Your task to perform on an android device: toggle notifications settings in the gmail app Image 0: 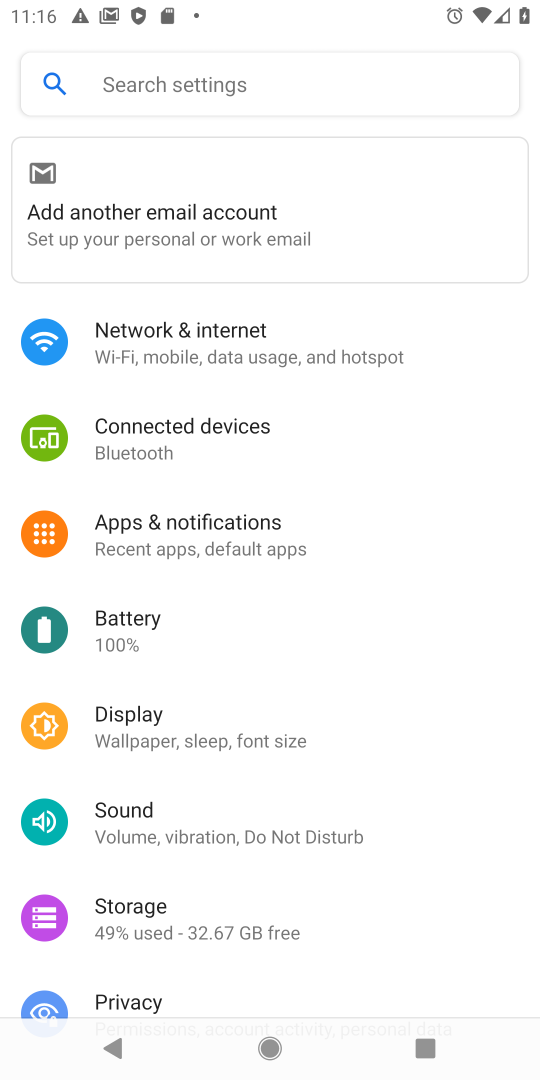
Step 0: press home button
Your task to perform on an android device: toggle notifications settings in the gmail app Image 1: 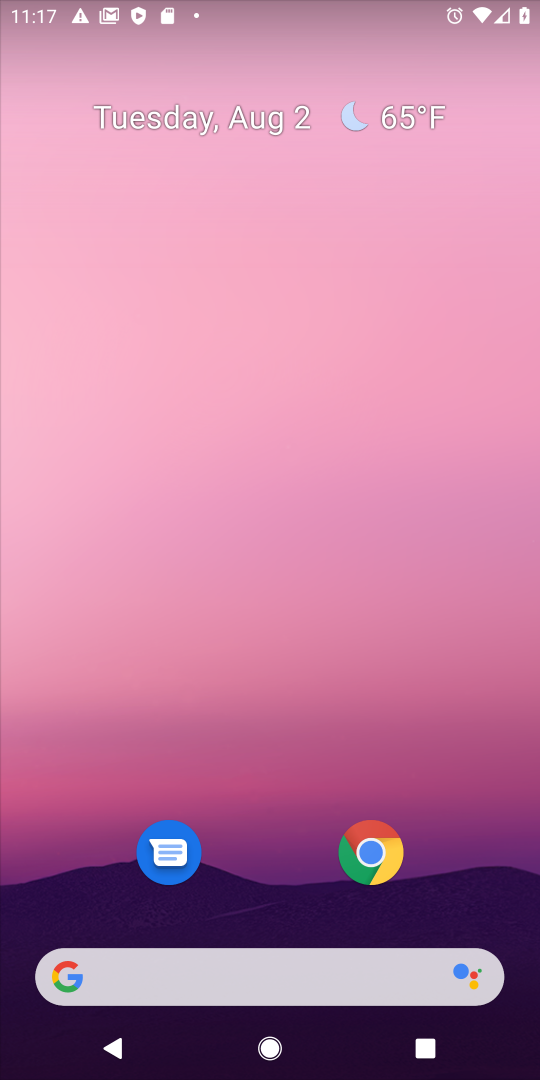
Step 1: drag from (23, 1049) to (330, 110)
Your task to perform on an android device: toggle notifications settings in the gmail app Image 2: 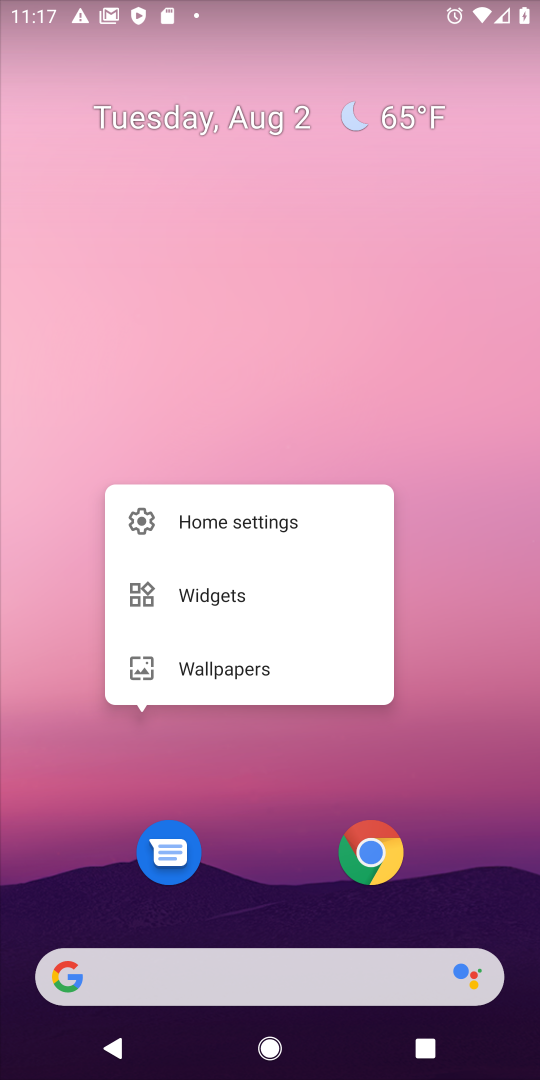
Step 2: drag from (80, 1022) to (324, 86)
Your task to perform on an android device: toggle notifications settings in the gmail app Image 3: 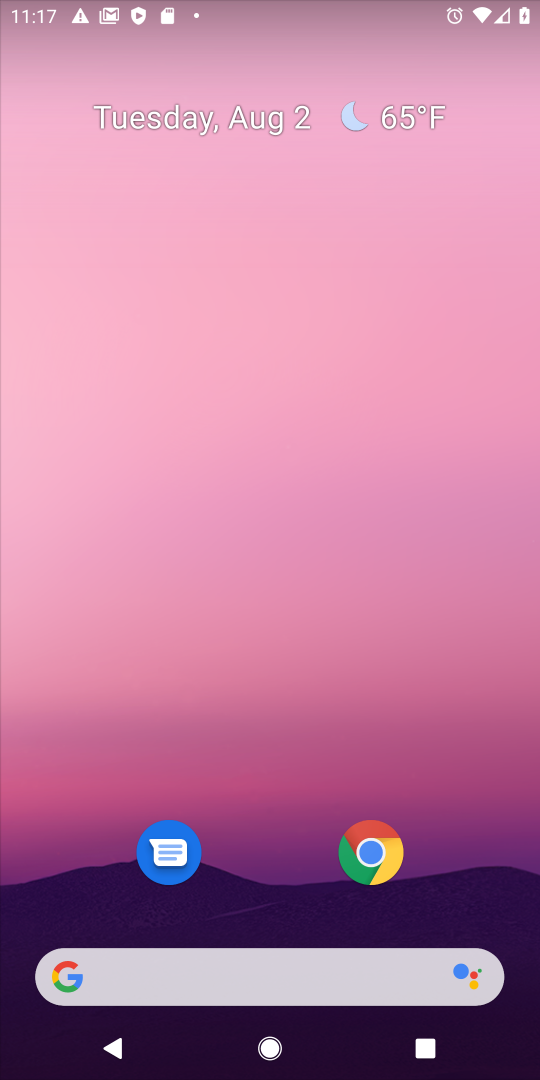
Step 3: drag from (51, 971) to (293, 5)
Your task to perform on an android device: toggle notifications settings in the gmail app Image 4: 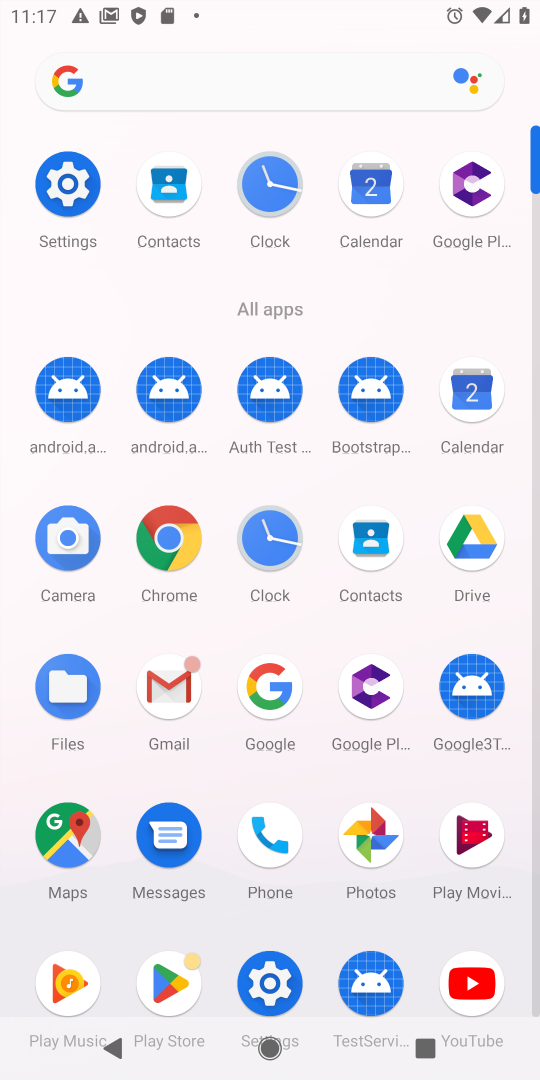
Step 4: click (277, 995)
Your task to perform on an android device: toggle notifications settings in the gmail app Image 5: 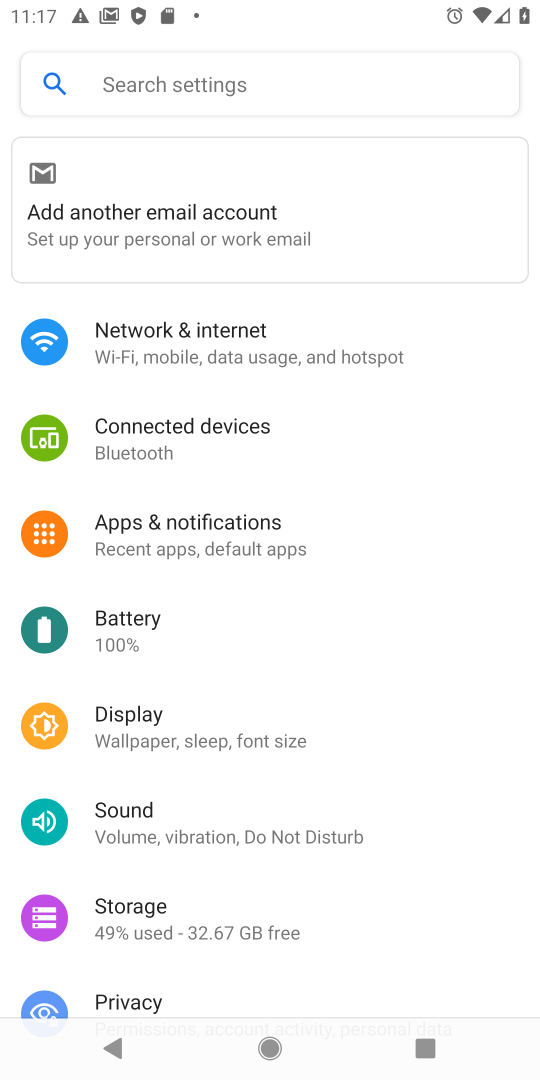
Step 5: press home button
Your task to perform on an android device: toggle notifications settings in the gmail app Image 6: 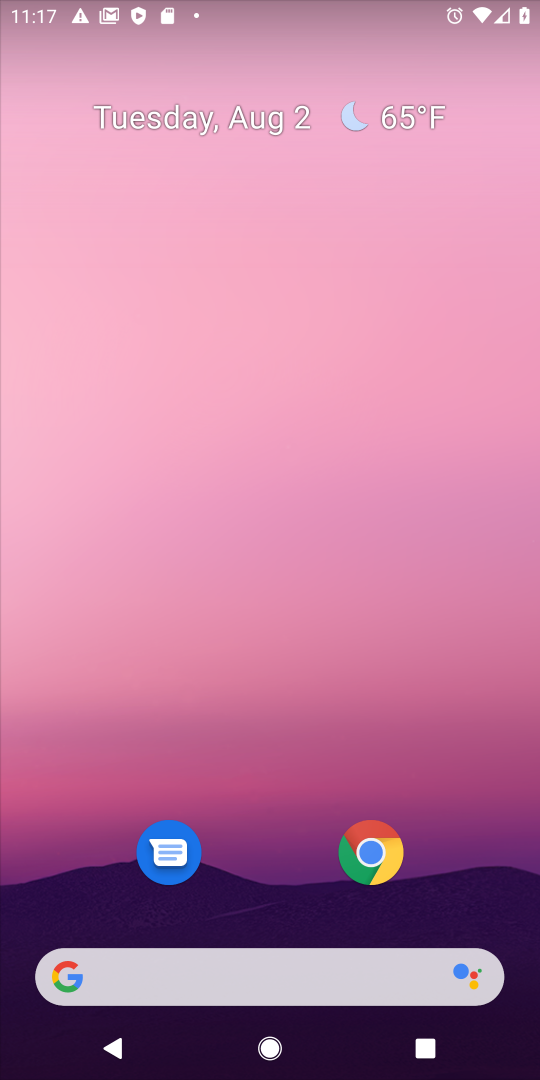
Step 6: drag from (66, 878) to (303, 24)
Your task to perform on an android device: toggle notifications settings in the gmail app Image 7: 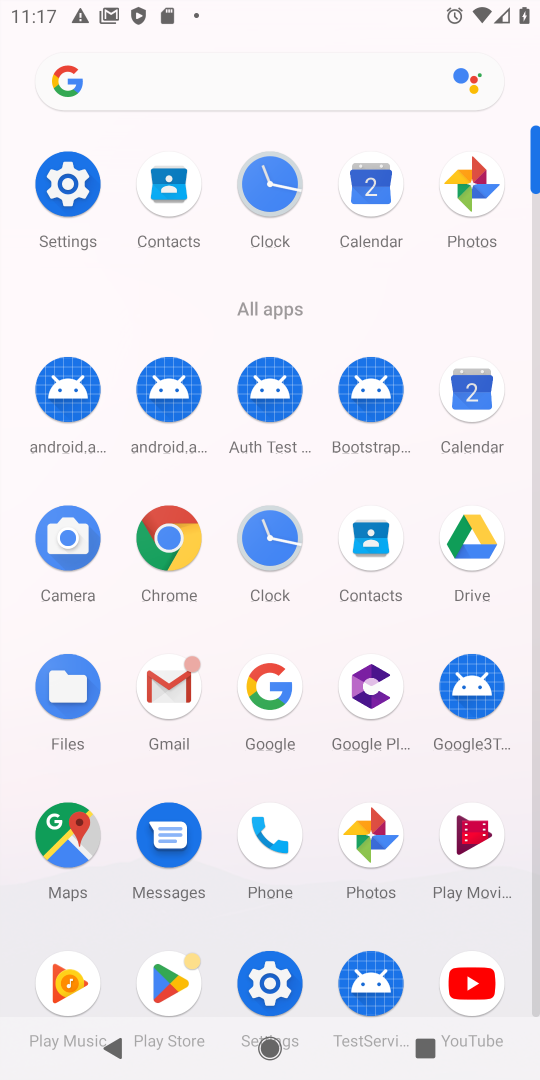
Step 7: click (191, 670)
Your task to perform on an android device: toggle notifications settings in the gmail app Image 8: 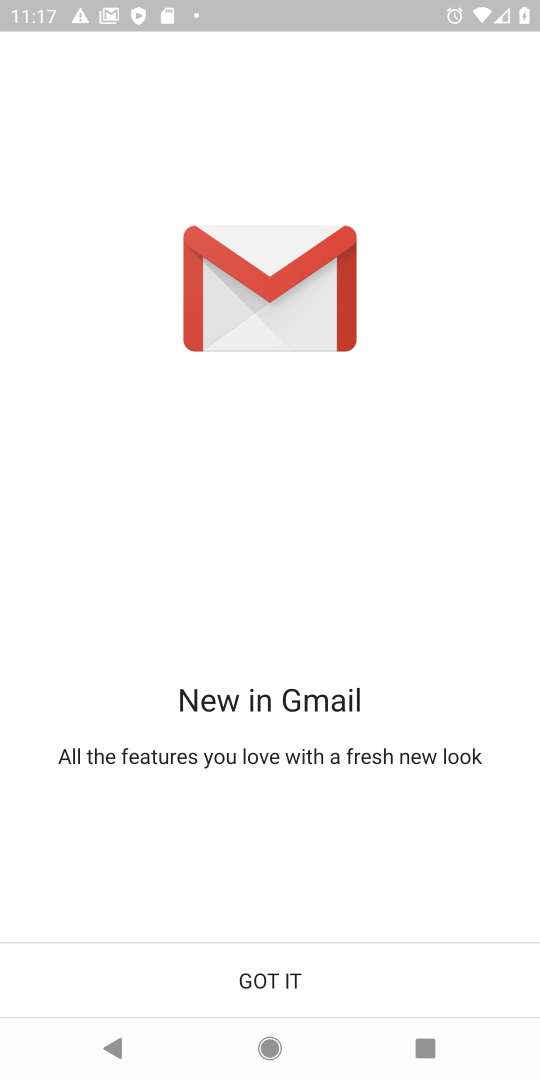
Step 8: click (258, 987)
Your task to perform on an android device: toggle notifications settings in the gmail app Image 9: 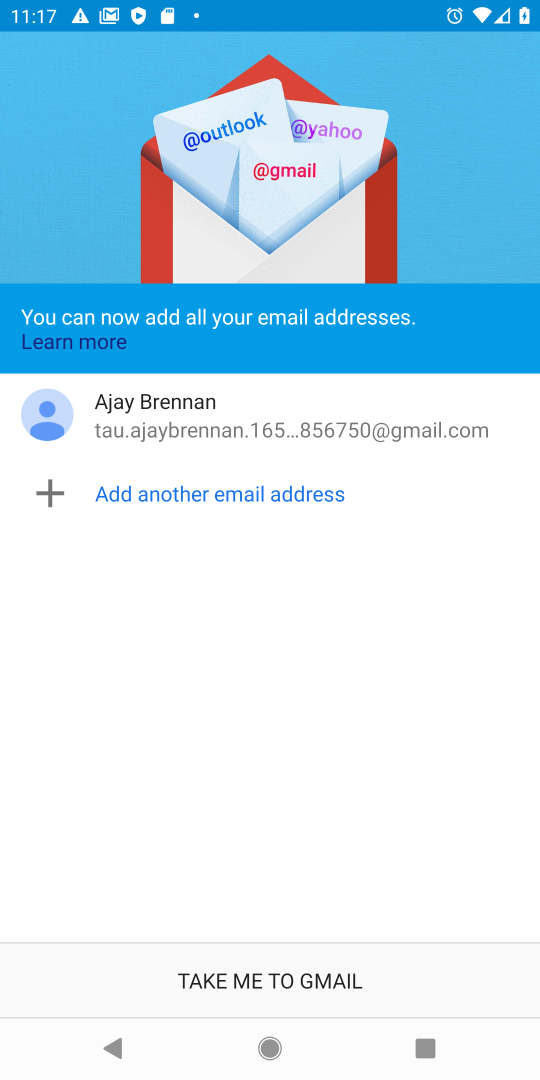
Step 9: click (260, 982)
Your task to perform on an android device: toggle notifications settings in the gmail app Image 10: 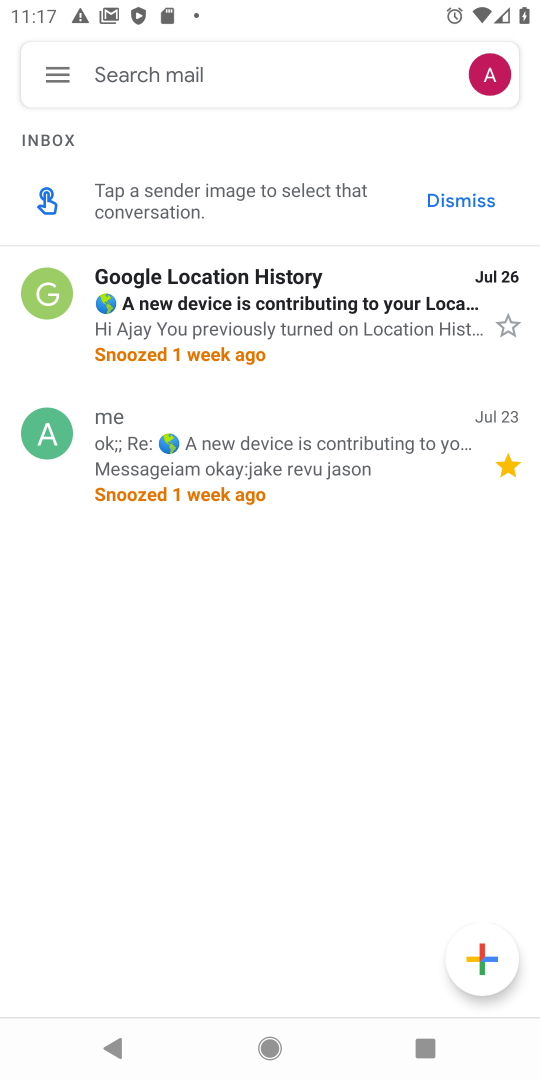
Step 10: click (52, 81)
Your task to perform on an android device: toggle notifications settings in the gmail app Image 11: 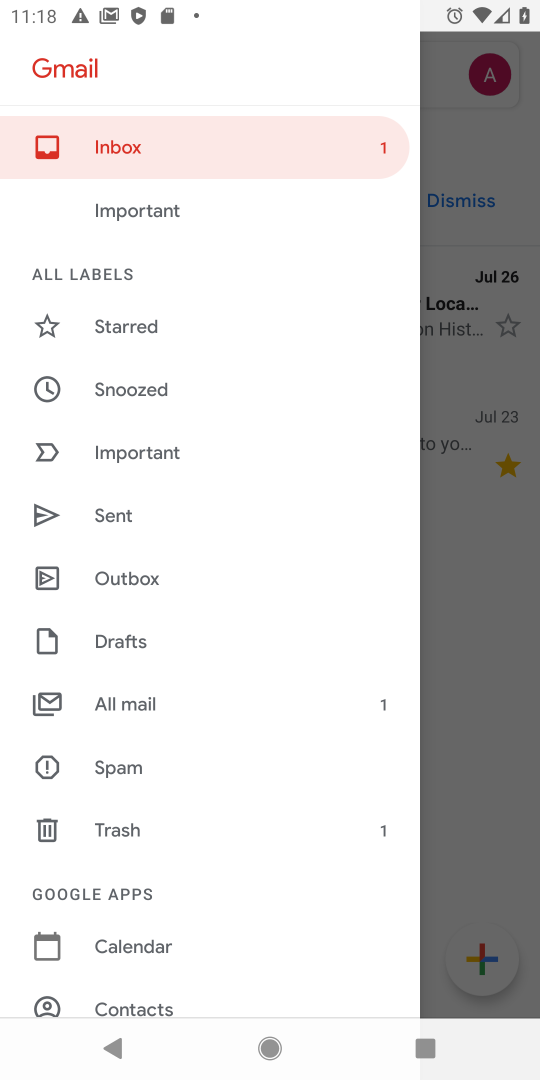
Step 11: drag from (188, 742) to (193, 59)
Your task to perform on an android device: toggle notifications settings in the gmail app Image 12: 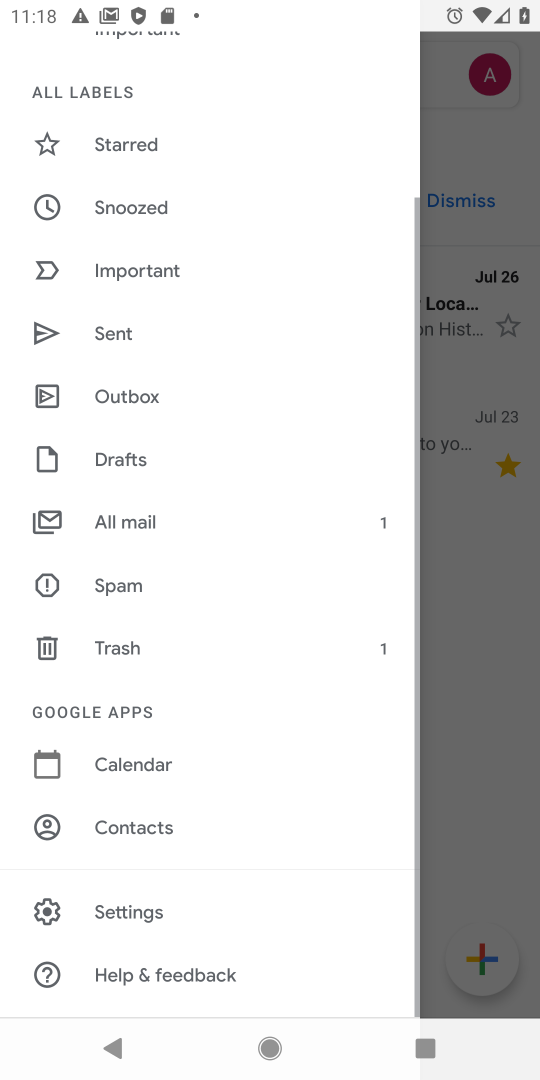
Step 12: click (110, 906)
Your task to perform on an android device: toggle notifications settings in the gmail app Image 13: 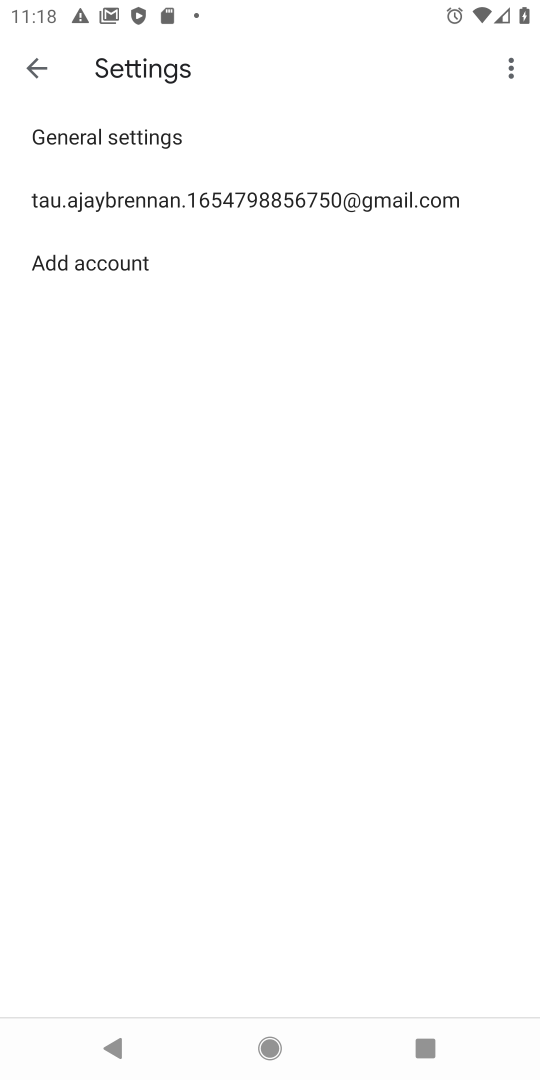
Step 13: click (115, 135)
Your task to perform on an android device: toggle notifications settings in the gmail app Image 14: 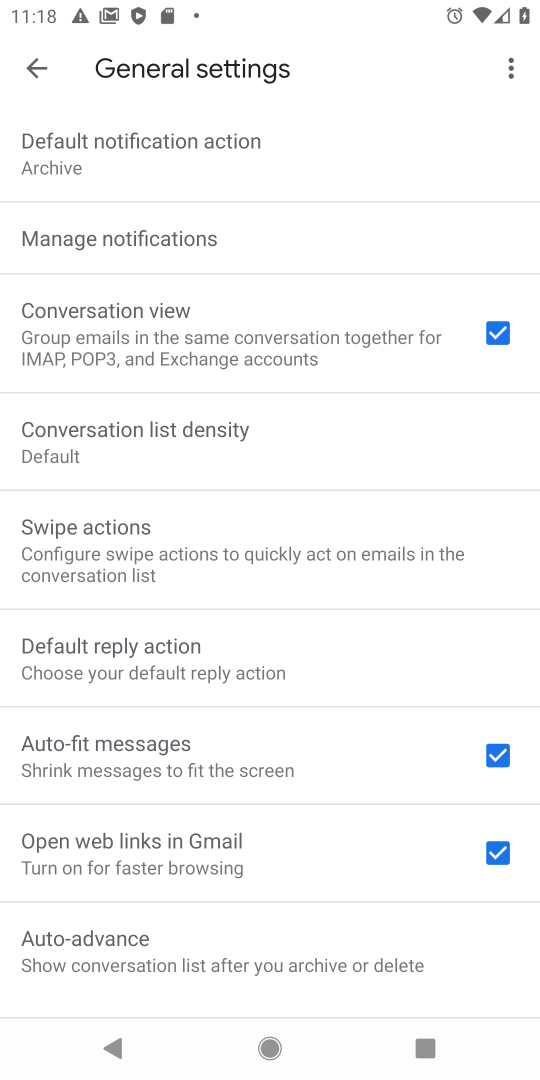
Step 14: drag from (294, 961) to (294, 180)
Your task to perform on an android device: toggle notifications settings in the gmail app Image 15: 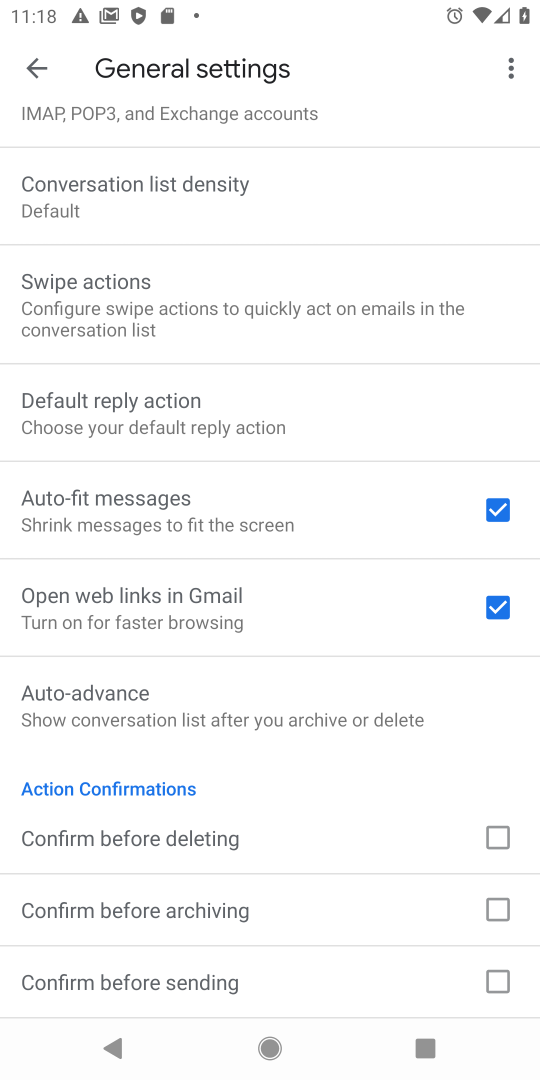
Step 15: click (47, 75)
Your task to perform on an android device: toggle notifications settings in the gmail app Image 16: 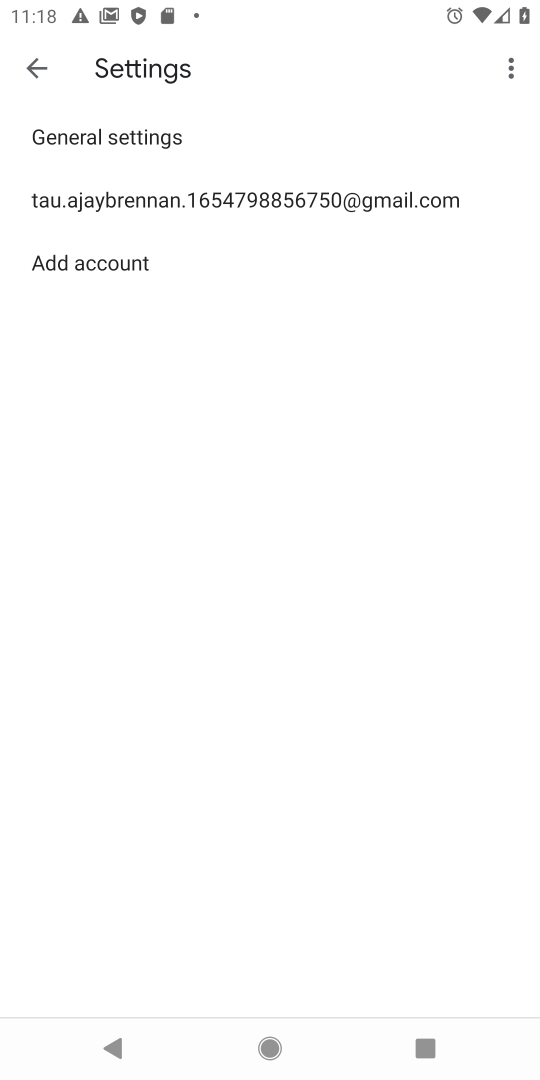
Step 16: click (221, 202)
Your task to perform on an android device: toggle notifications settings in the gmail app Image 17: 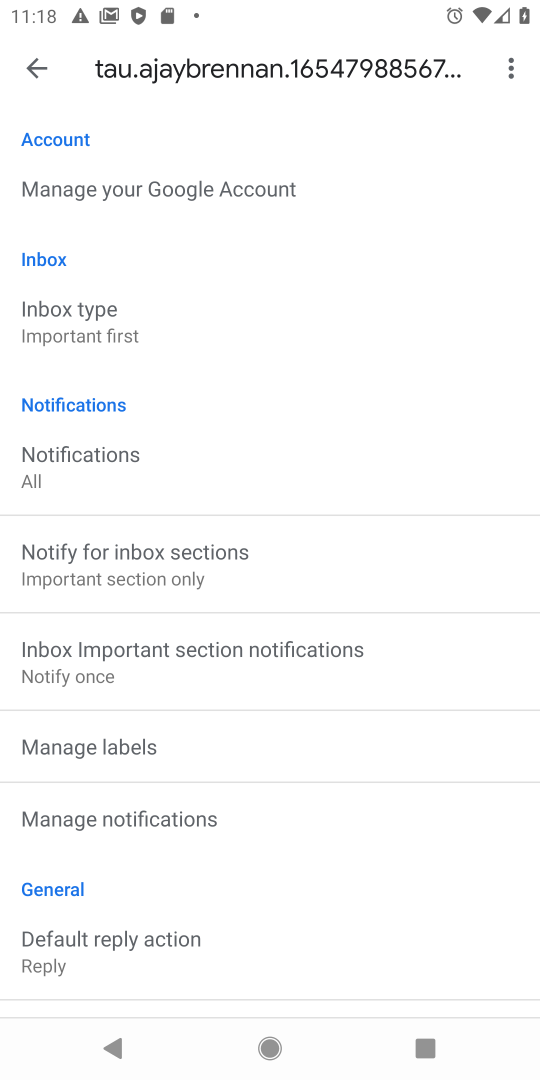
Step 17: click (167, 463)
Your task to perform on an android device: toggle notifications settings in the gmail app Image 18: 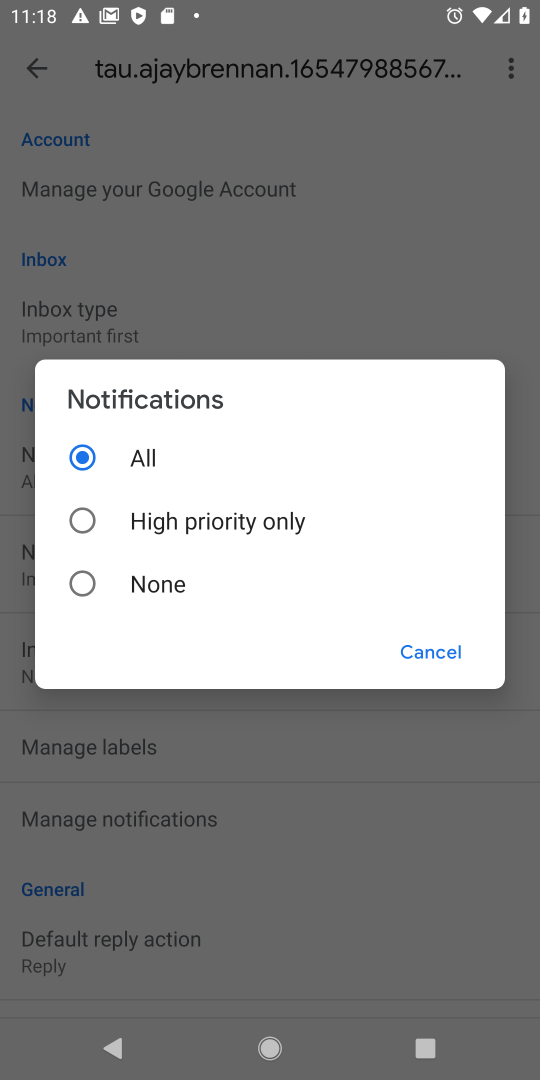
Step 18: task complete